Your task to perform on an android device: What is the recent news? Image 0: 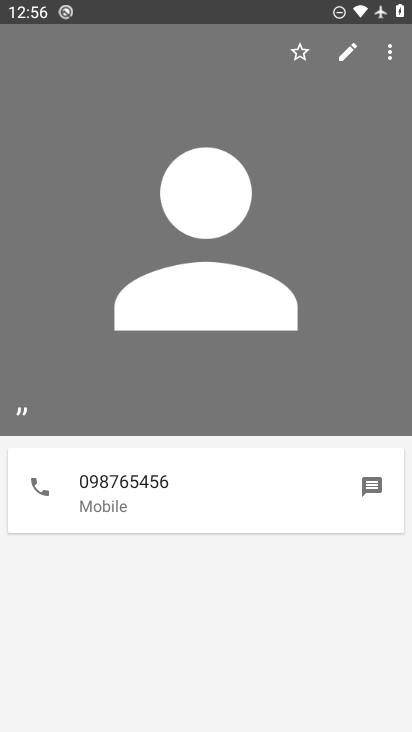
Step 0: press home button
Your task to perform on an android device: What is the recent news? Image 1: 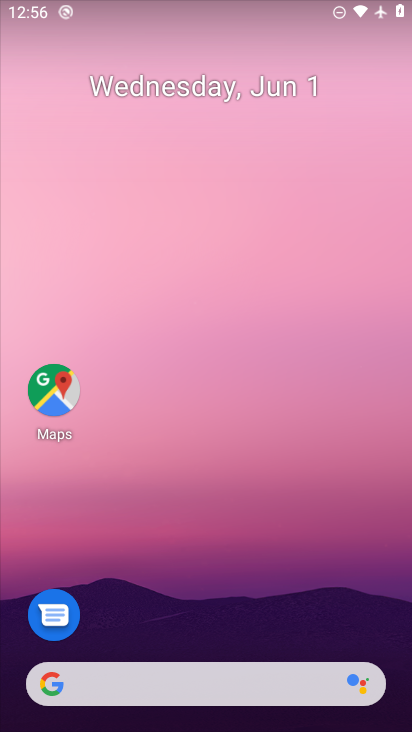
Step 1: press home button
Your task to perform on an android device: What is the recent news? Image 2: 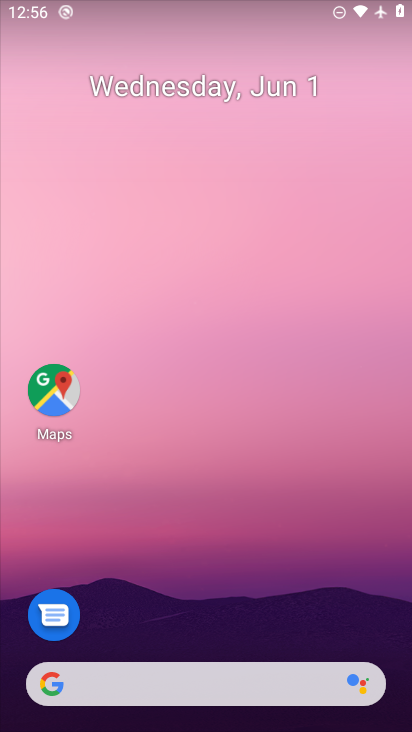
Step 2: drag from (281, 616) to (291, 126)
Your task to perform on an android device: What is the recent news? Image 3: 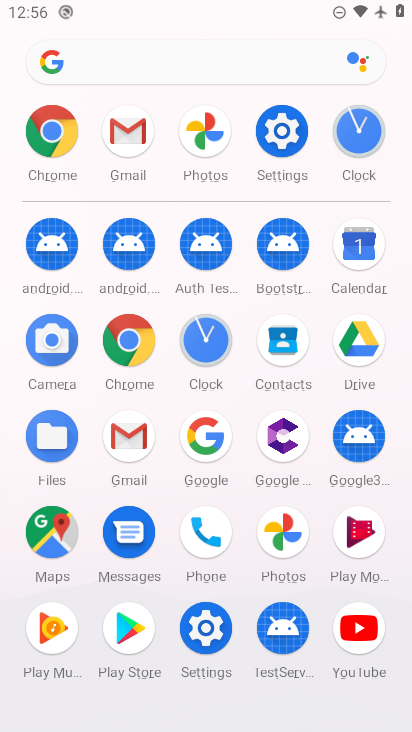
Step 3: click (69, 140)
Your task to perform on an android device: What is the recent news? Image 4: 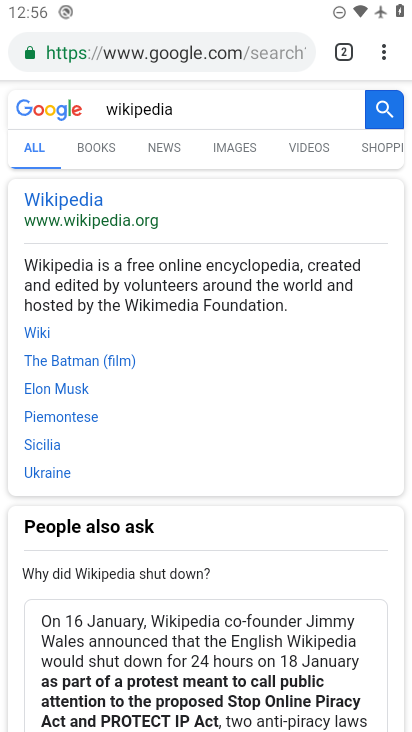
Step 4: click (281, 61)
Your task to perform on an android device: What is the recent news? Image 5: 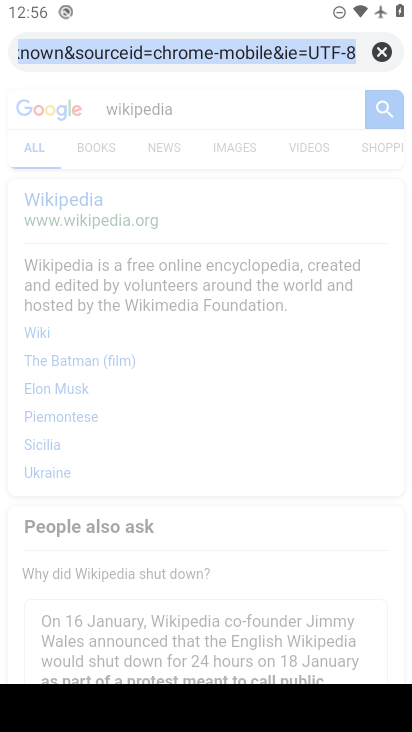
Step 5: type "what is the recent news"
Your task to perform on an android device: What is the recent news? Image 6: 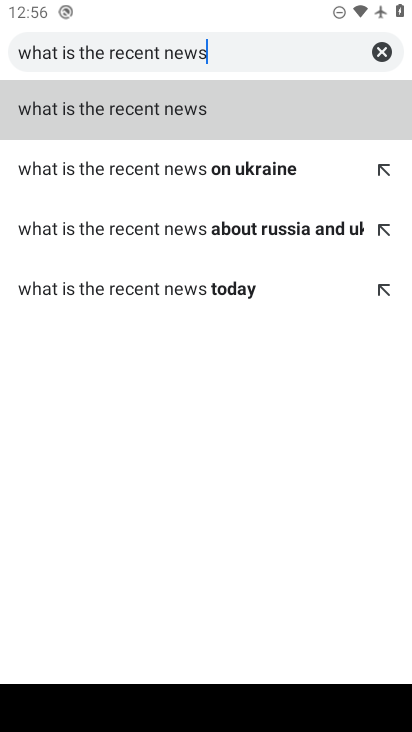
Step 6: click (275, 102)
Your task to perform on an android device: What is the recent news? Image 7: 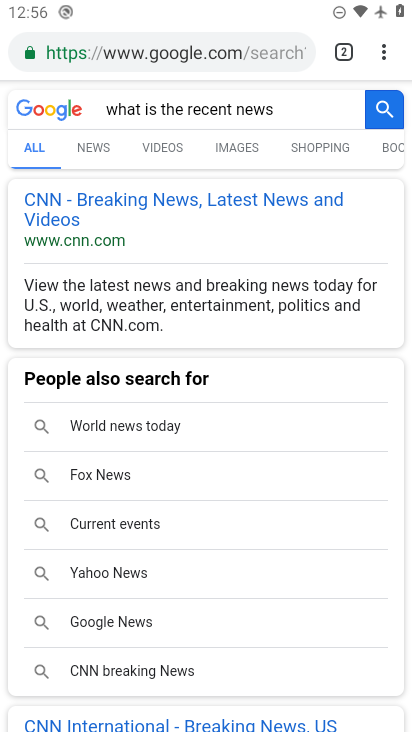
Step 7: click (263, 199)
Your task to perform on an android device: What is the recent news? Image 8: 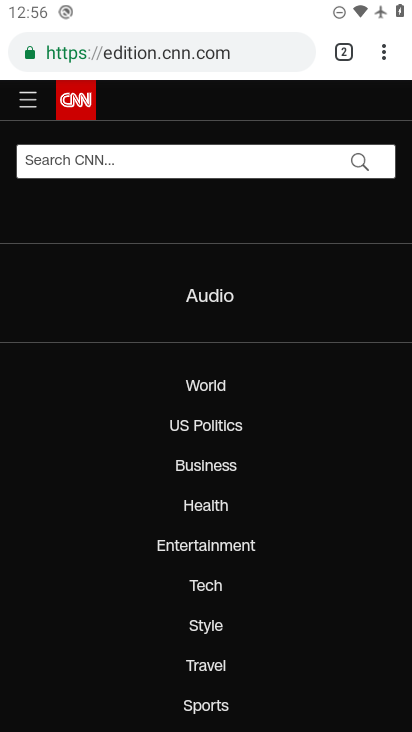
Step 8: task complete